Your task to perform on an android device: Go to Wikipedia Image 0: 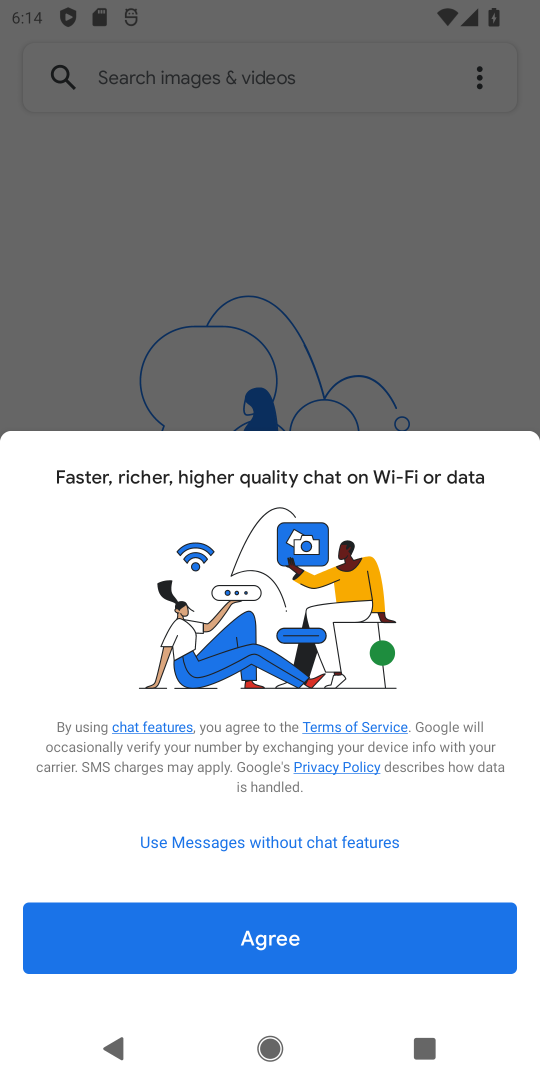
Step 0: press home button
Your task to perform on an android device: Go to Wikipedia Image 1: 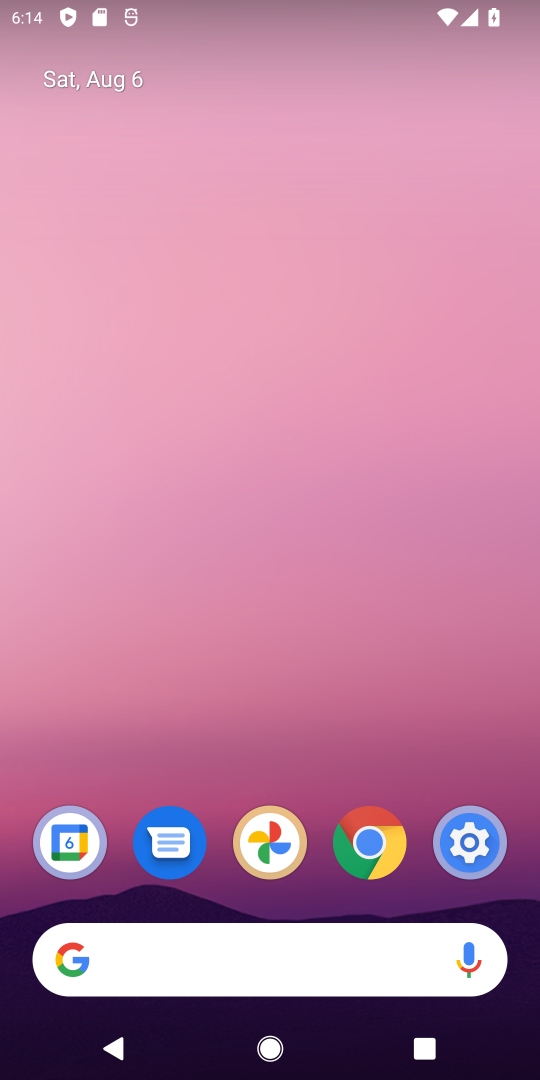
Step 1: click (365, 843)
Your task to perform on an android device: Go to Wikipedia Image 2: 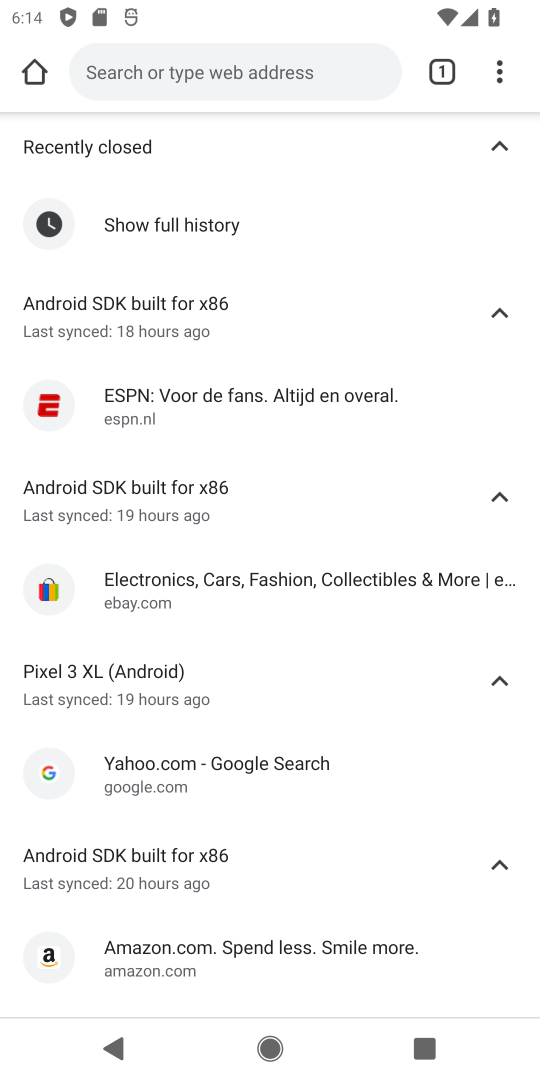
Step 2: click (287, 74)
Your task to perform on an android device: Go to Wikipedia Image 3: 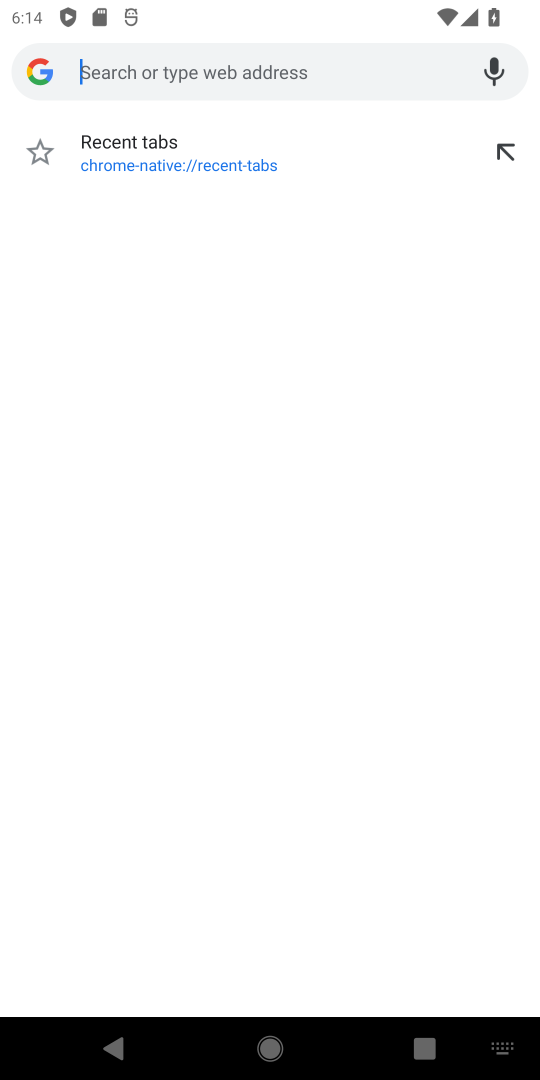
Step 3: type "Wikipedia"
Your task to perform on an android device: Go to Wikipedia Image 4: 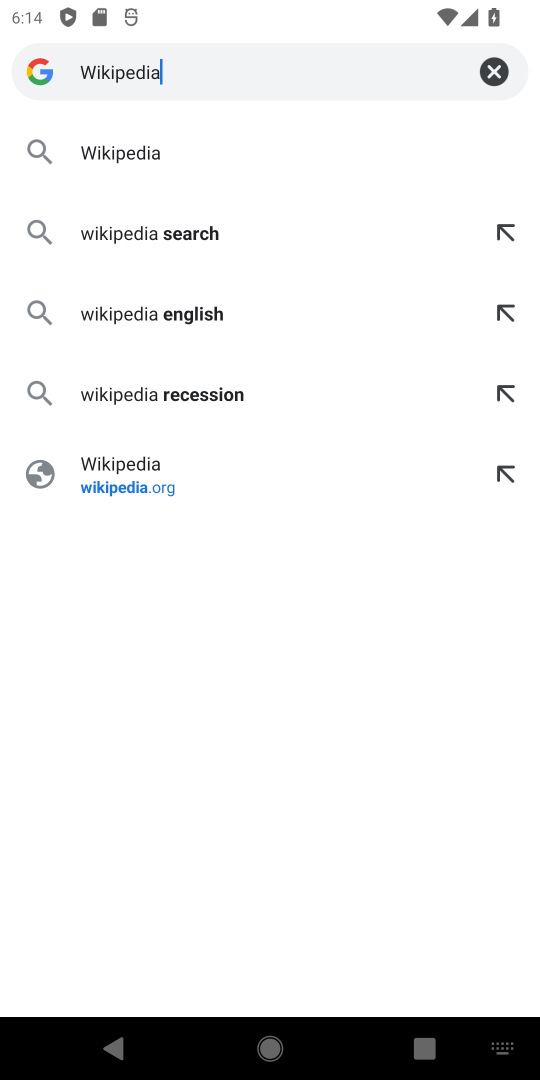
Step 4: click (126, 154)
Your task to perform on an android device: Go to Wikipedia Image 5: 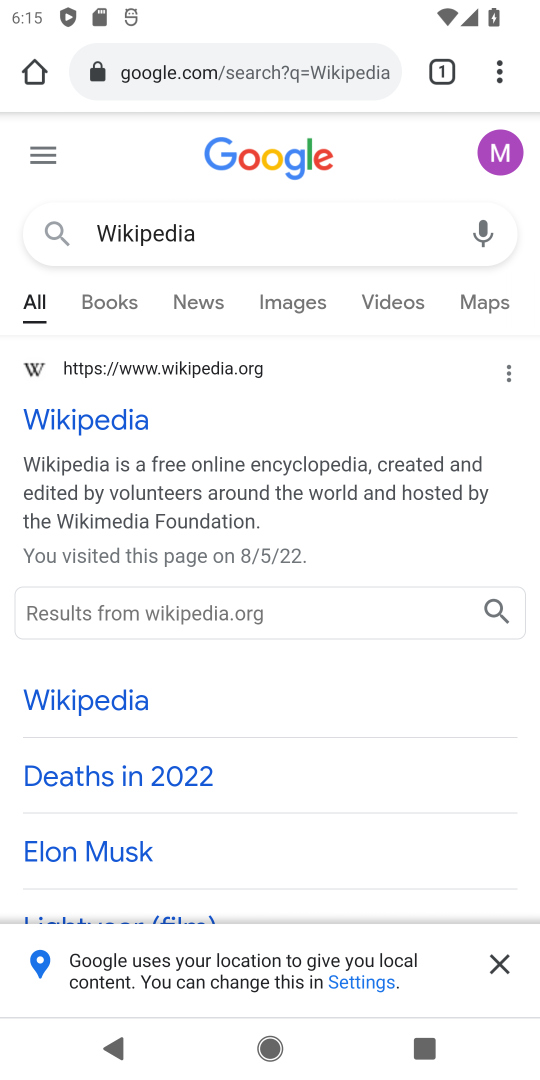
Step 5: click (111, 436)
Your task to perform on an android device: Go to Wikipedia Image 6: 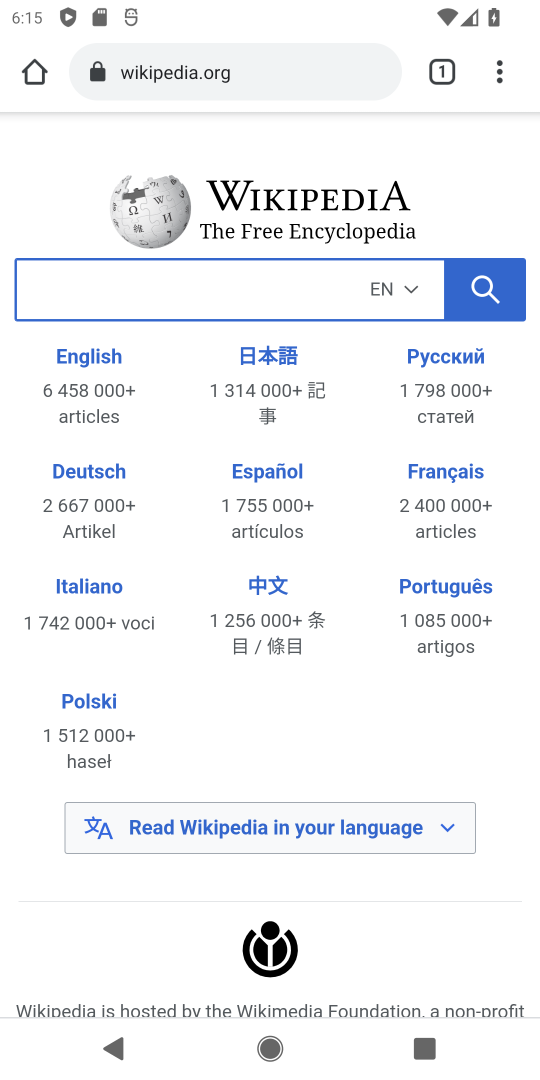
Step 6: task complete